Your task to perform on an android device: open a bookmark in the chrome app Image 0: 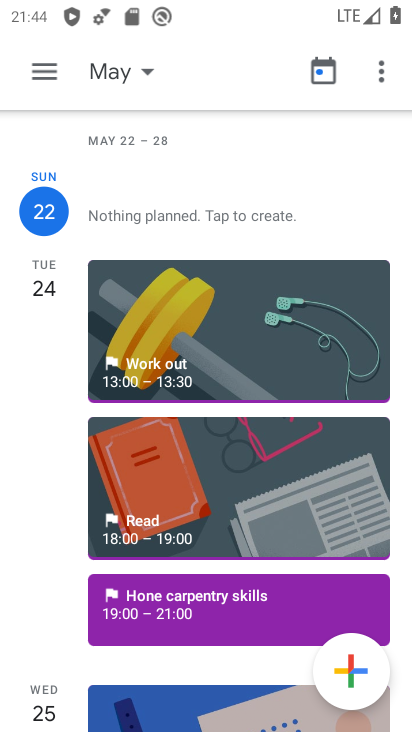
Step 0: press home button
Your task to perform on an android device: open a bookmark in the chrome app Image 1: 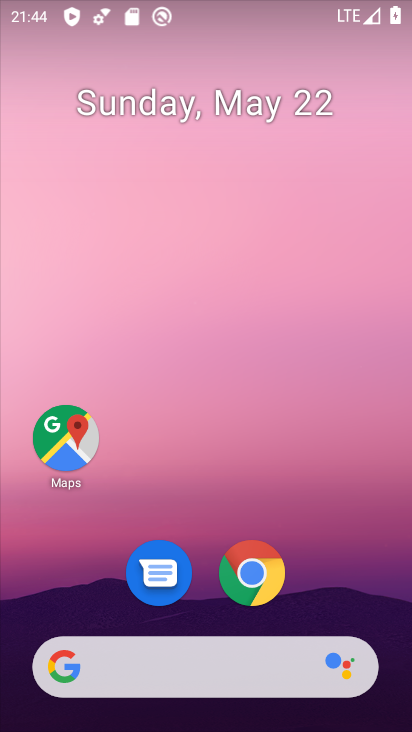
Step 1: click (254, 577)
Your task to perform on an android device: open a bookmark in the chrome app Image 2: 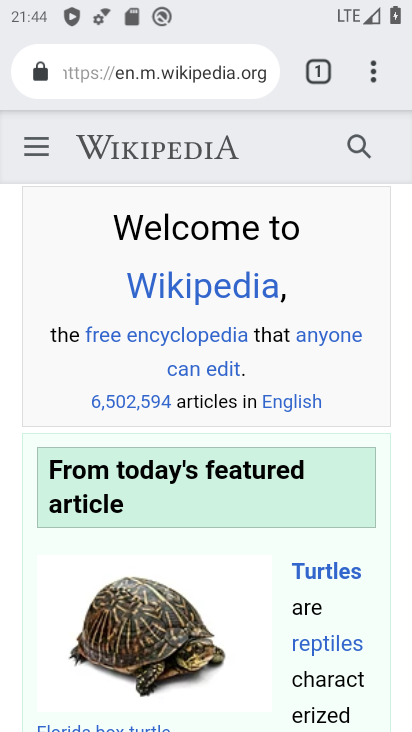
Step 2: task complete